Your task to perform on an android device: turn on location history Image 0: 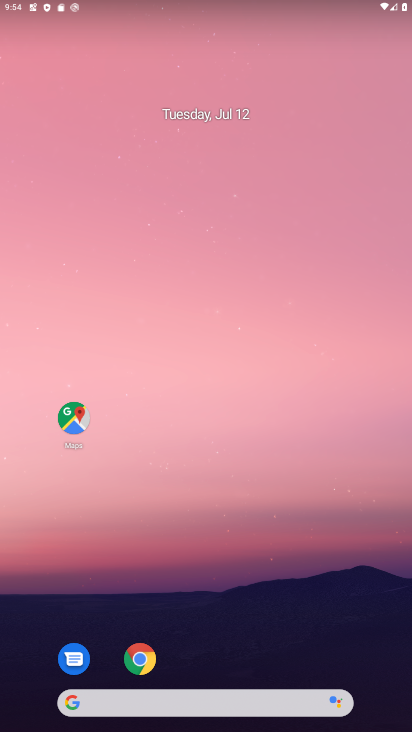
Step 0: drag from (400, 695) to (362, 170)
Your task to perform on an android device: turn on location history Image 1: 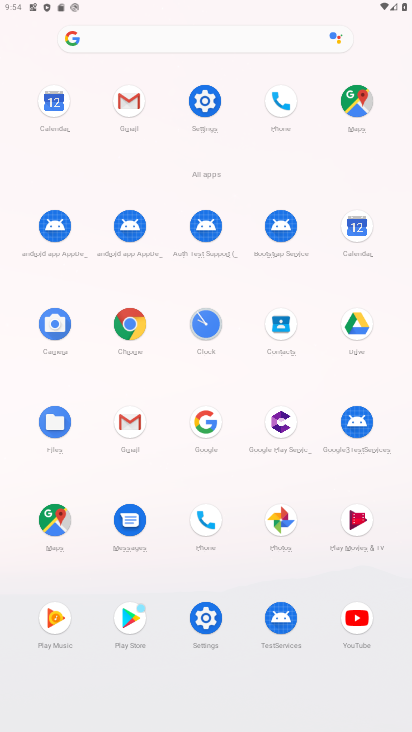
Step 1: click (197, 106)
Your task to perform on an android device: turn on location history Image 2: 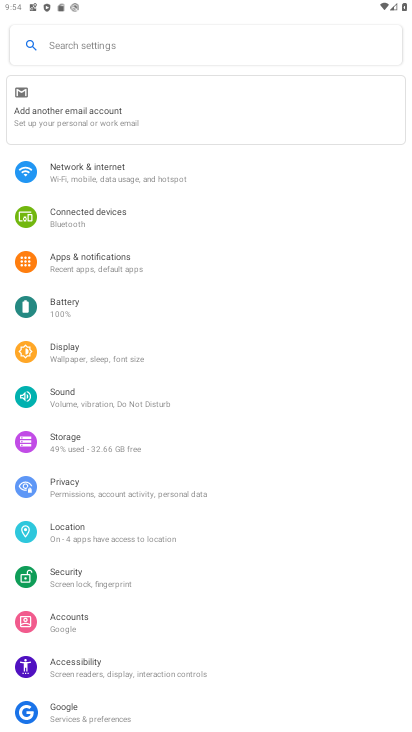
Step 2: click (66, 532)
Your task to perform on an android device: turn on location history Image 3: 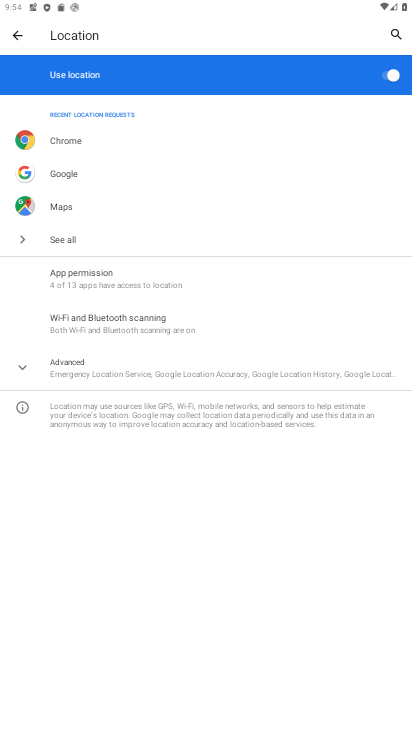
Step 3: click (17, 367)
Your task to perform on an android device: turn on location history Image 4: 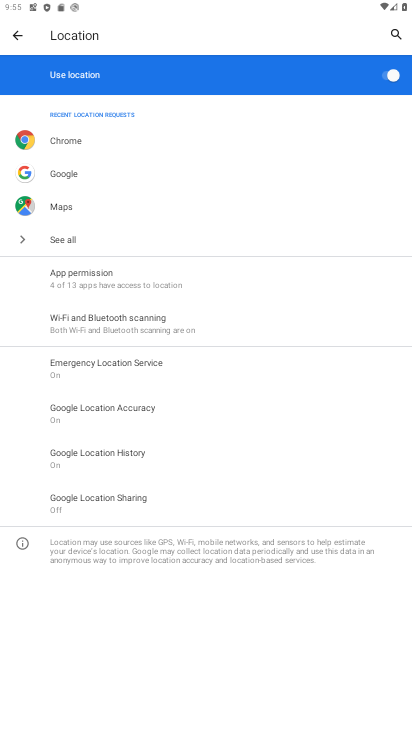
Step 4: task complete